Your task to perform on an android device: Go to settings Image 0: 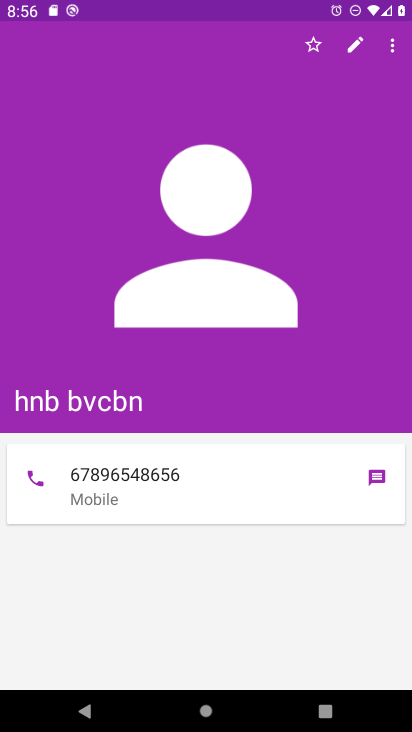
Step 0: press home button
Your task to perform on an android device: Go to settings Image 1: 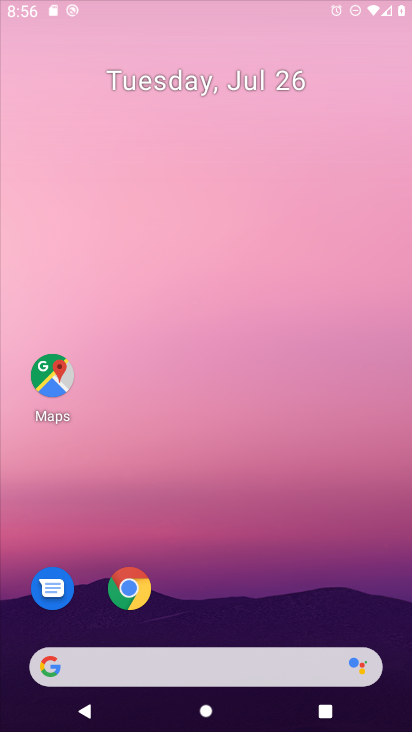
Step 1: drag from (124, 716) to (190, 275)
Your task to perform on an android device: Go to settings Image 2: 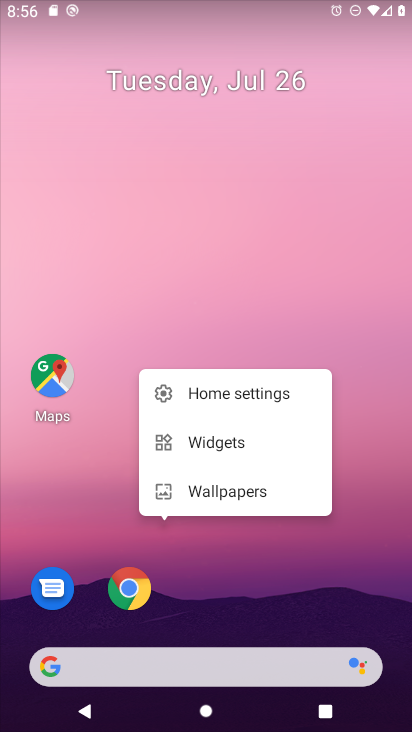
Step 2: click (275, 236)
Your task to perform on an android device: Go to settings Image 3: 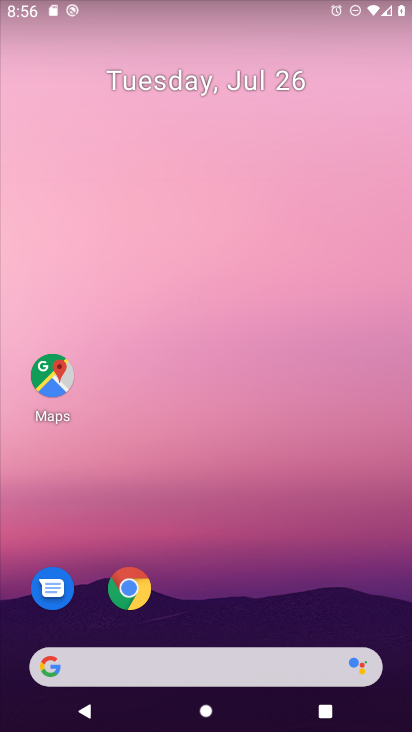
Step 3: drag from (230, 643) to (288, 19)
Your task to perform on an android device: Go to settings Image 4: 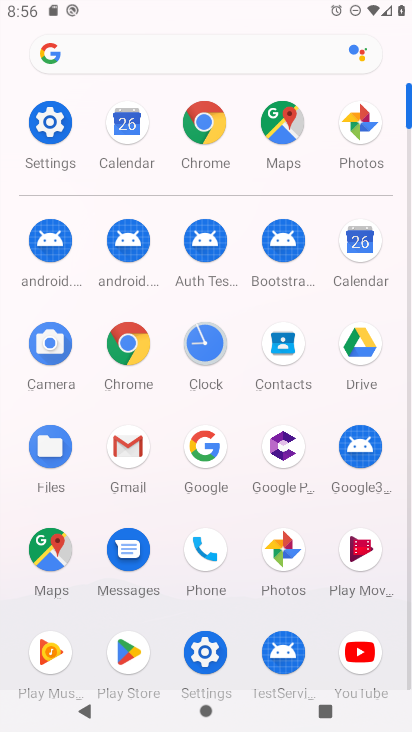
Step 4: click (55, 146)
Your task to perform on an android device: Go to settings Image 5: 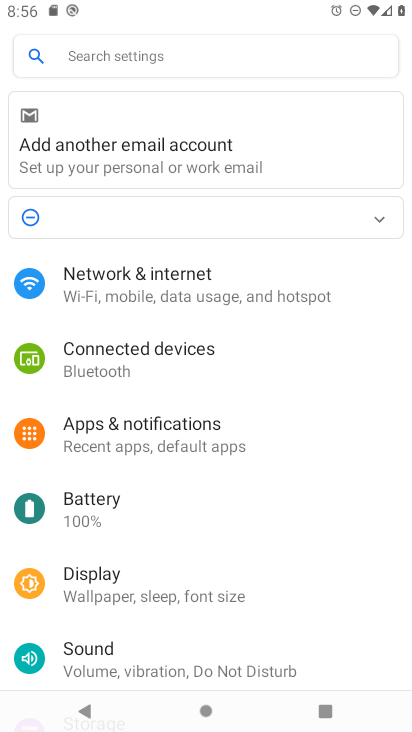
Step 5: task complete